Your task to perform on an android device: turn on data saver in the chrome app Image 0: 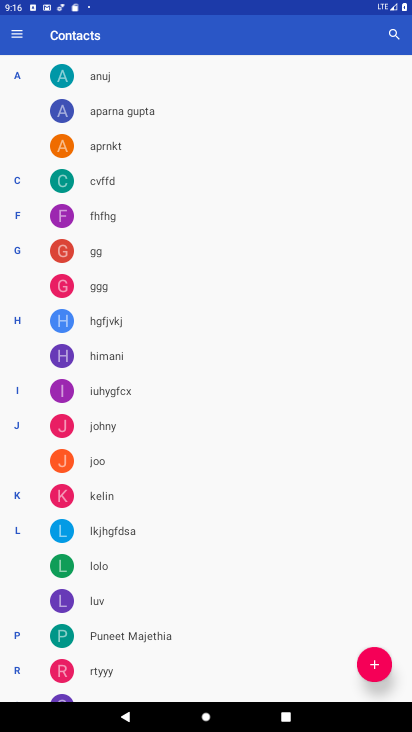
Step 0: press home button
Your task to perform on an android device: turn on data saver in the chrome app Image 1: 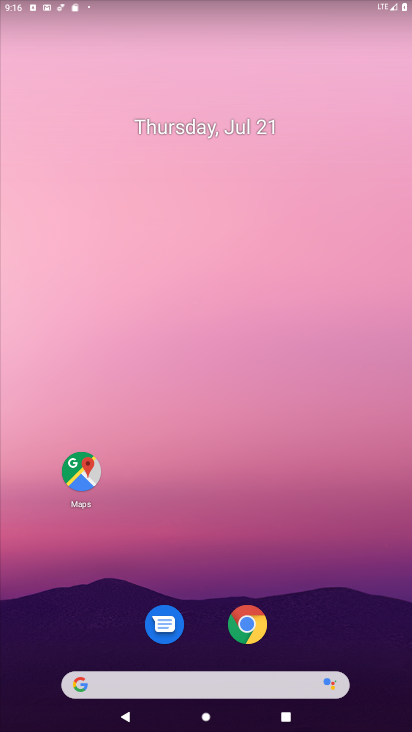
Step 1: click (245, 628)
Your task to perform on an android device: turn on data saver in the chrome app Image 2: 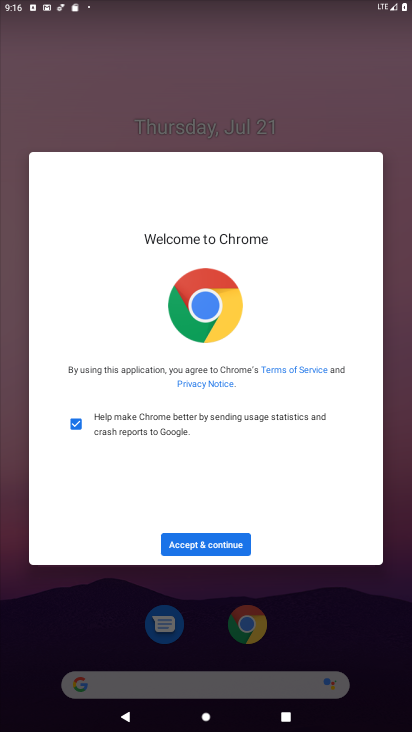
Step 2: click (238, 548)
Your task to perform on an android device: turn on data saver in the chrome app Image 3: 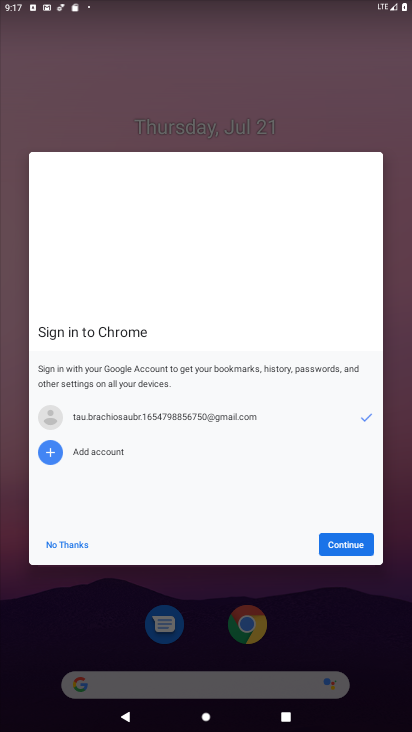
Step 3: click (64, 538)
Your task to perform on an android device: turn on data saver in the chrome app Image 4: 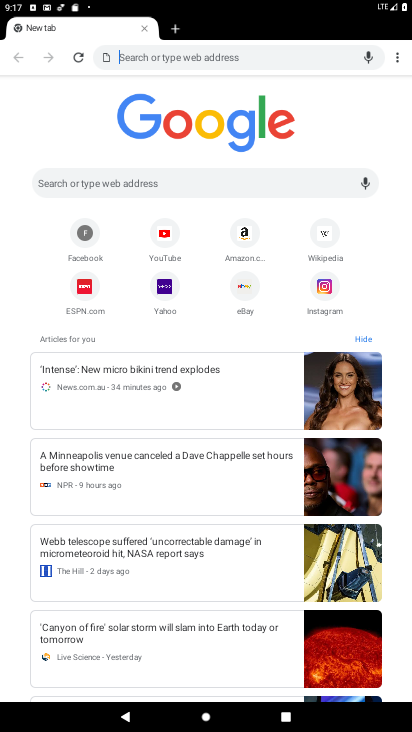
Step 4: click (400, 61)
Your task to perform on an android device: turn on data saver in the chrome app Image 5: 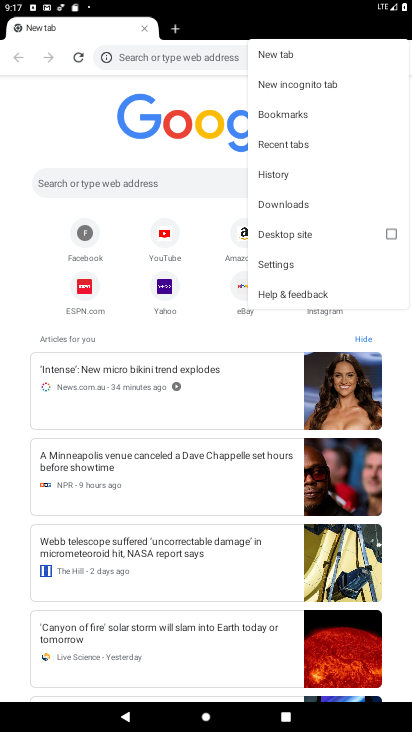
Step 5: click (277, 268)
Your task to perform on an android device: turn on data saver in the chrome app Image 6: 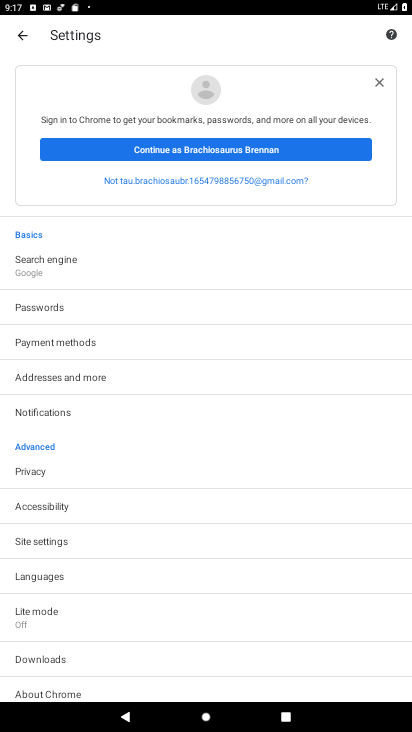
Step 6: click (42, 618)
Your task to perform on an android device: turn on data saver in the chrome app Image 7: 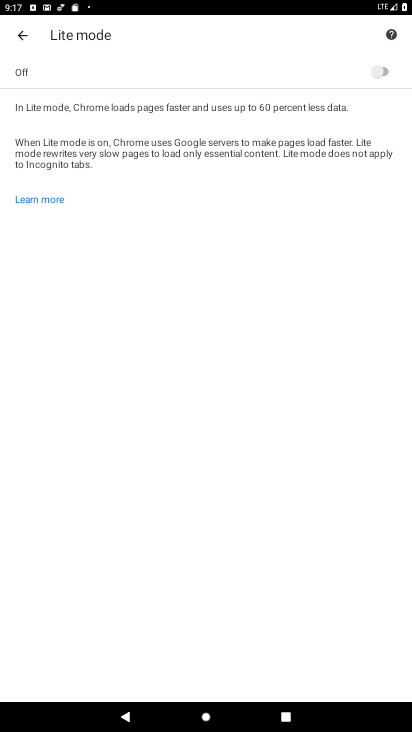
Step 7: click (378, 72)
Your task to perform on an android device: turn on data saver in the chrome app Image 8: 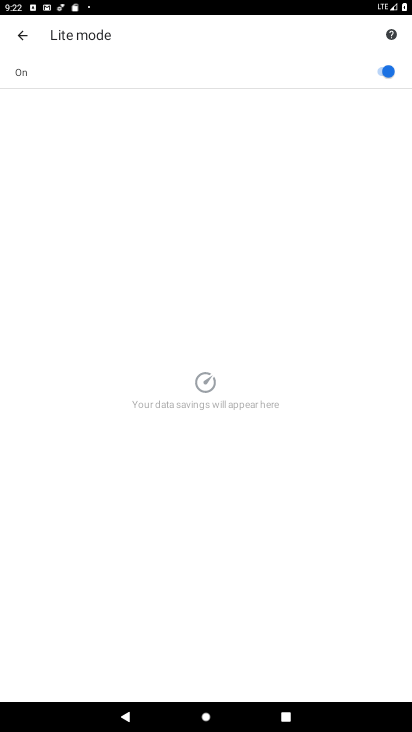
Step 8: task complete